Your task to perform on an android device: change the clock display to digital Image 0: 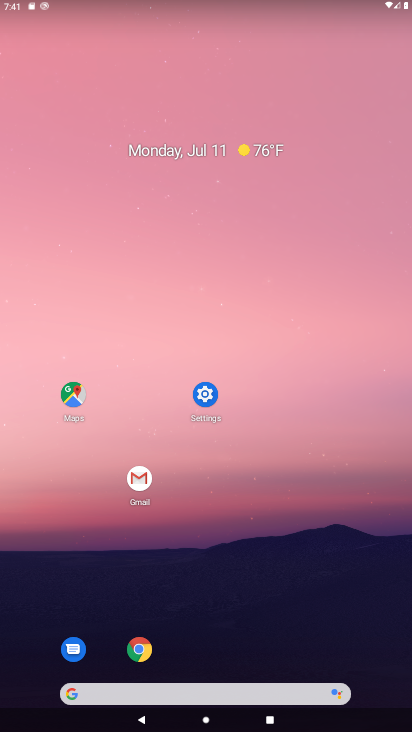
Step 0: drag from (386, 690) to (356, 158)
Your task to perform on an android device: change the clock display to digital Image 1: 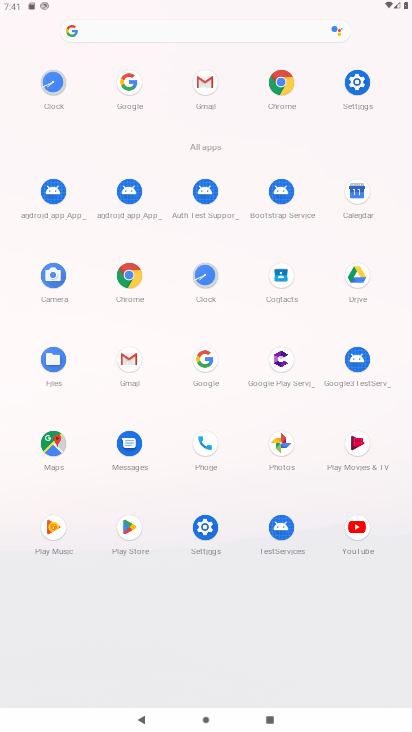
Step 1: click (211, 279)
Your task to perform on an android device: change the clock display to digital Image 2: 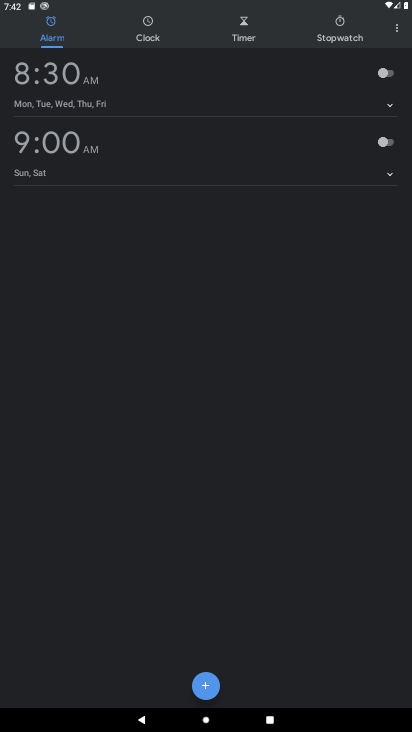
Step 2: task complete